Your task to perform on an android device: Add "logitech g933" to the cart on walmart Image 0: 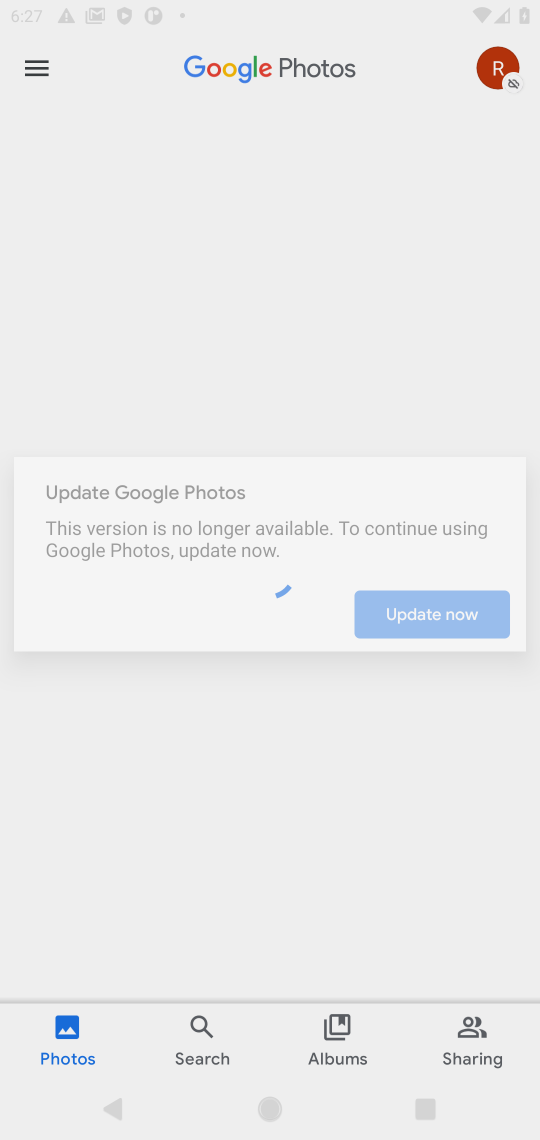
Step 0: press home button
Your task to perform on an android device: Add "logitech g933" to the cart on walmart Image 1: 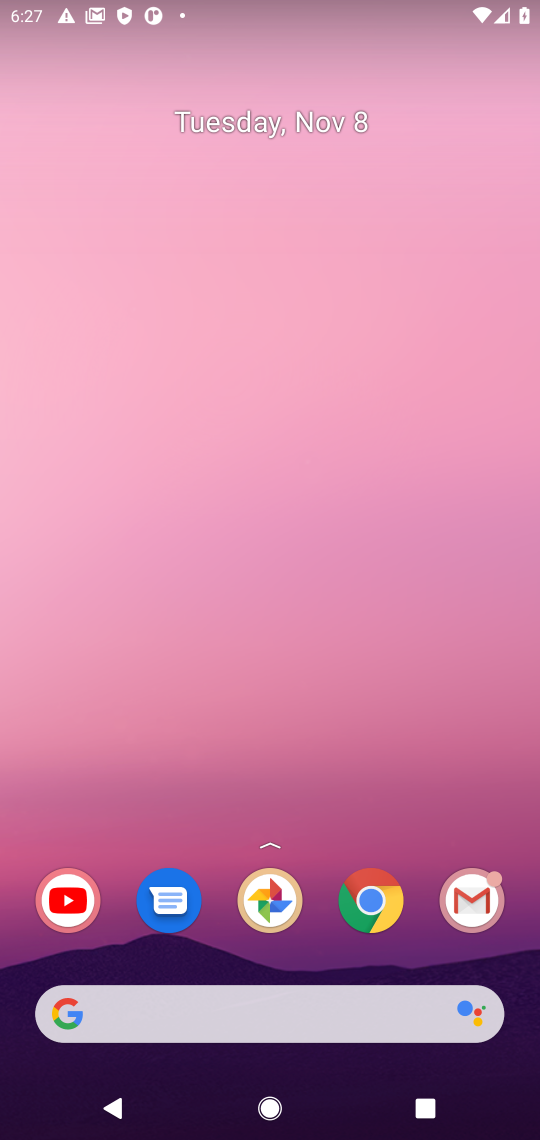
Step 1: click (371, 918)
Your task to perform on an android device: Add "logitech g933" to the cart on walmart Image 2: 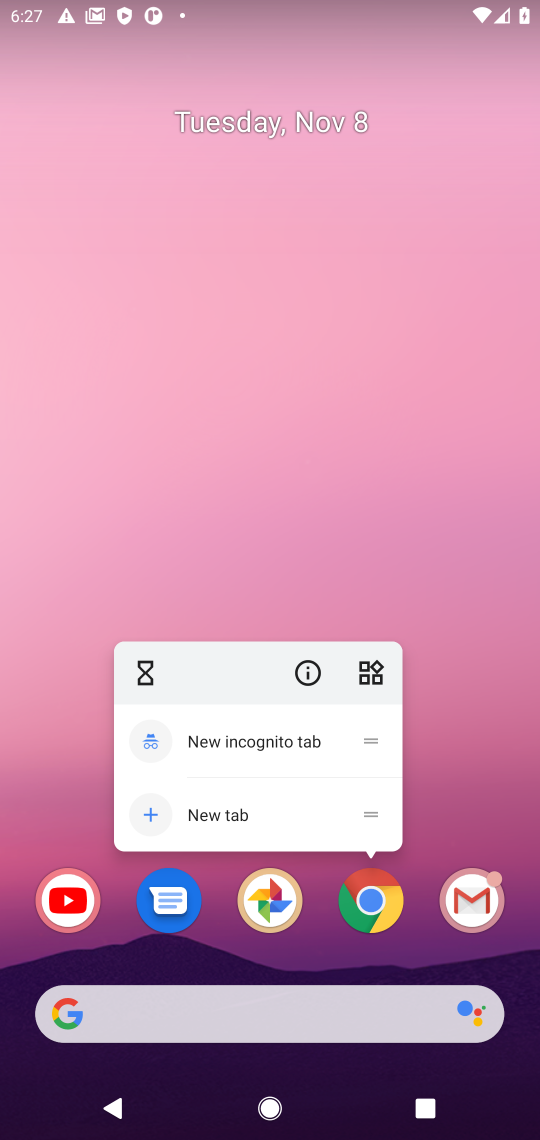
Step 2: click (363, 910)
Your task to perform on an android device: Add "logitech g933" to the cart on walmart Image 3: 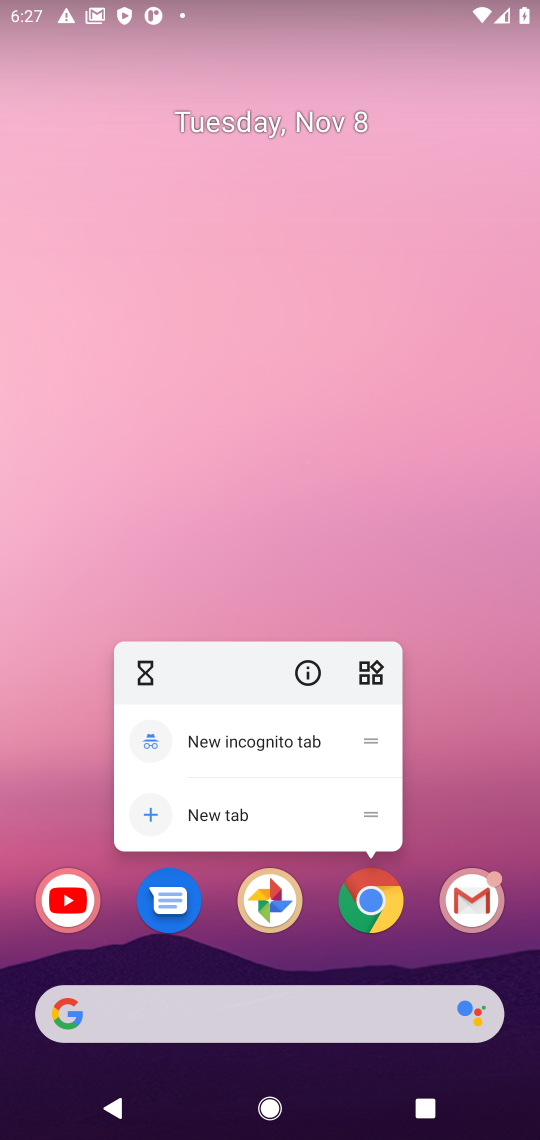
Step 3: click (361, 904)
Your task to perform on an android device: Add "logitech g933" to the cart on walmart Image 4: 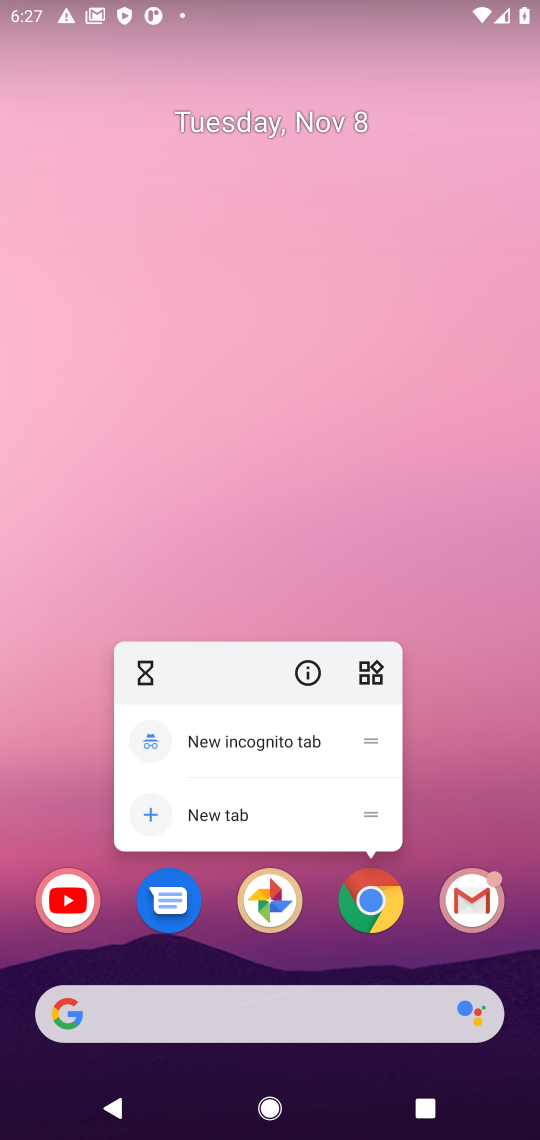
Step 4: click (378, 904)
Your task to perform on an android device: Add "logitech g933" to the cart on walmart Image 5: 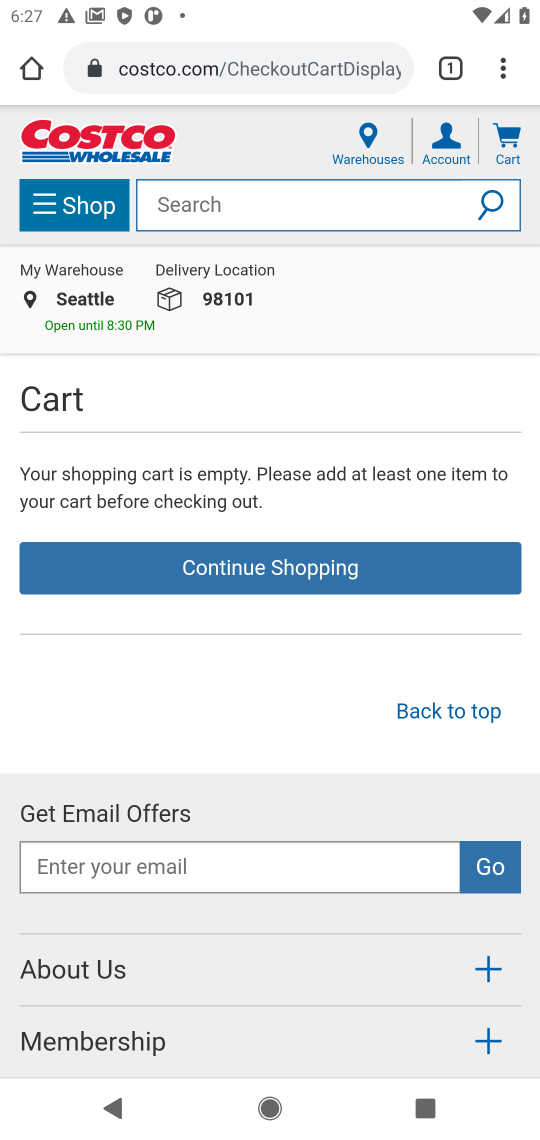
Step 5: click (147, 68)
Your task to perform on an android device: Add "logitech g933" to the cart on walmart Image 6: 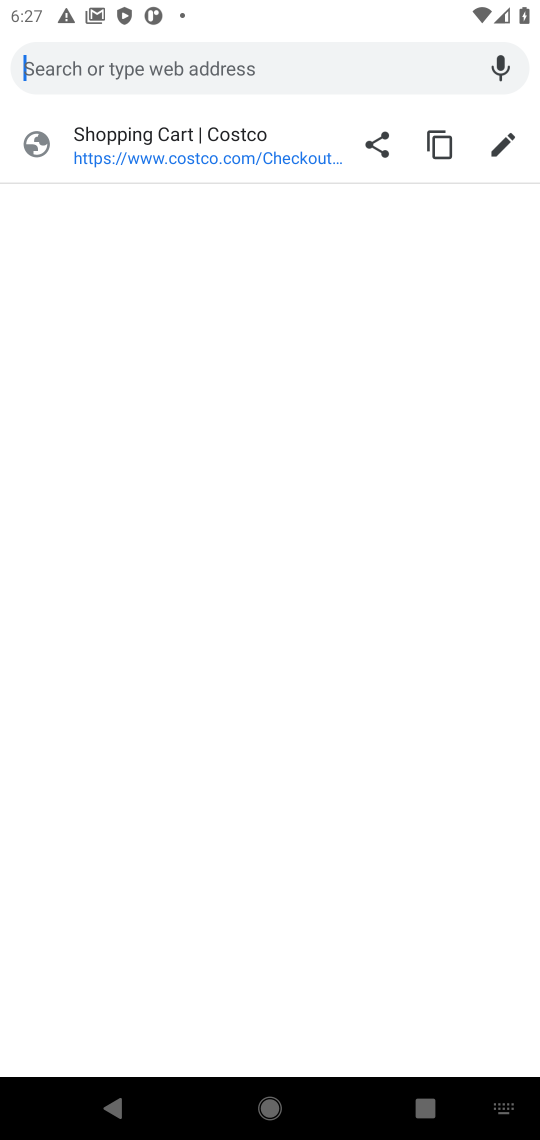
Step 6: type "walmart"
Your task to perform on an android device: Add "logitech g933" to the cart on walmart Image 7: 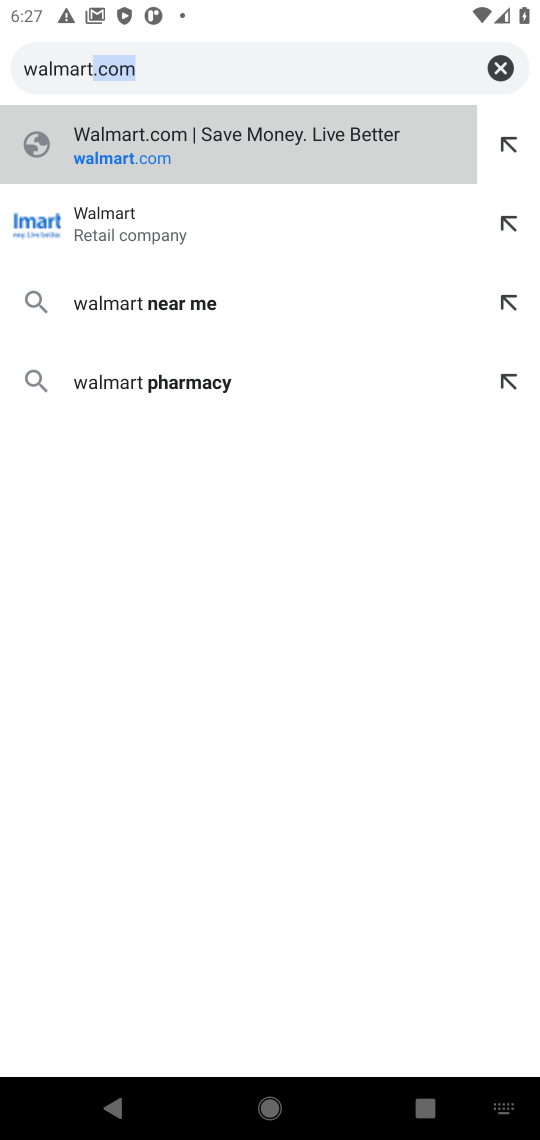
Step 7: type ""
Your task to perform on an android device: Add "logitech g933" to the cart on walmart Image 8: 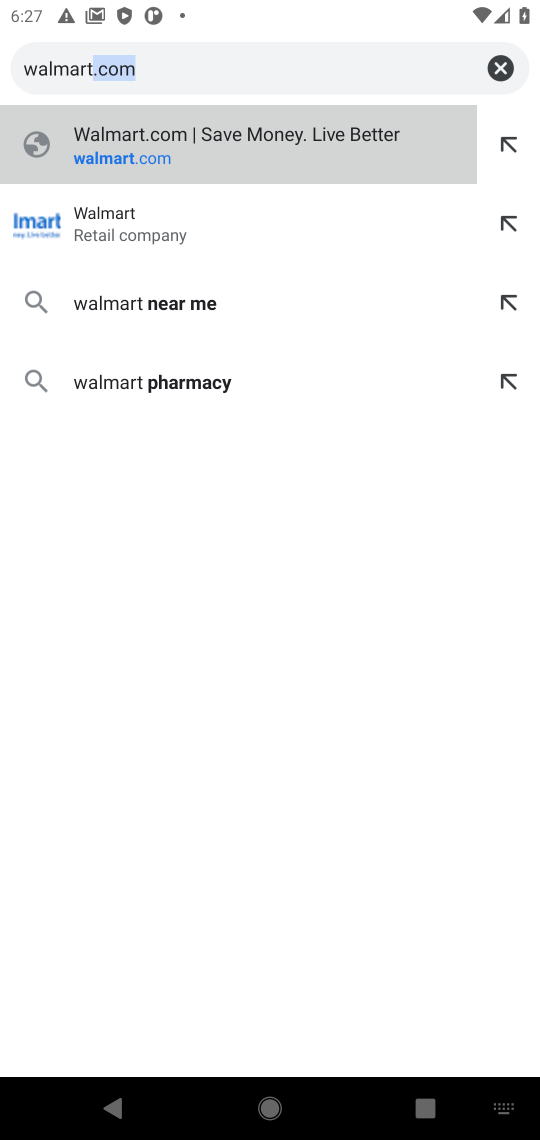
Step 8: click (85, 226)
Your task to perform on an android device: Add "logitech g933" to the cart on walmart Image 9: 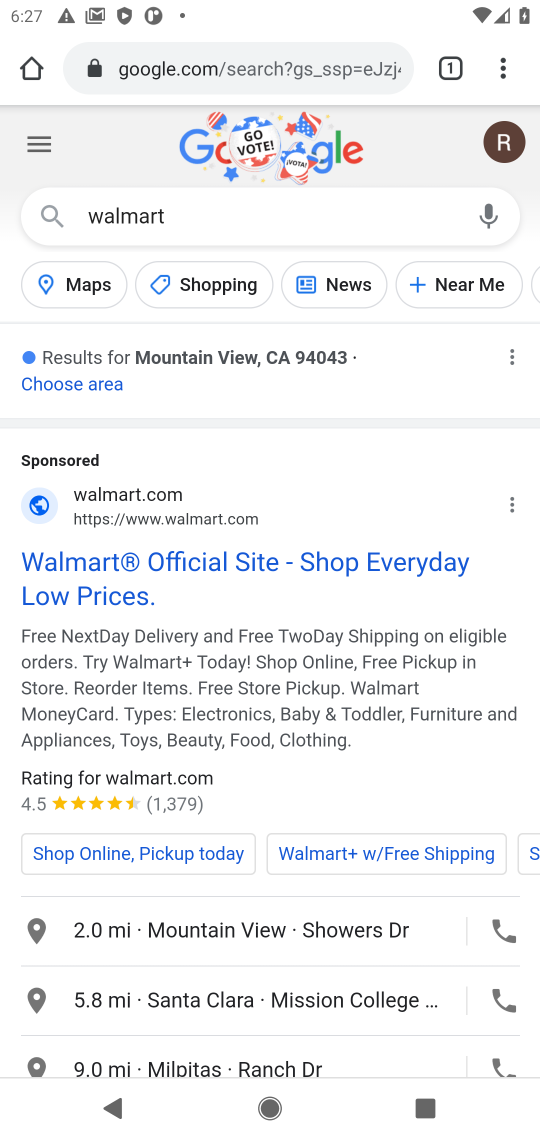
Step 9: drag from (198, 803) to (236, 197)
Your task to perform on an android device: Add "logitech g933" to the cart on walmart Image 10: 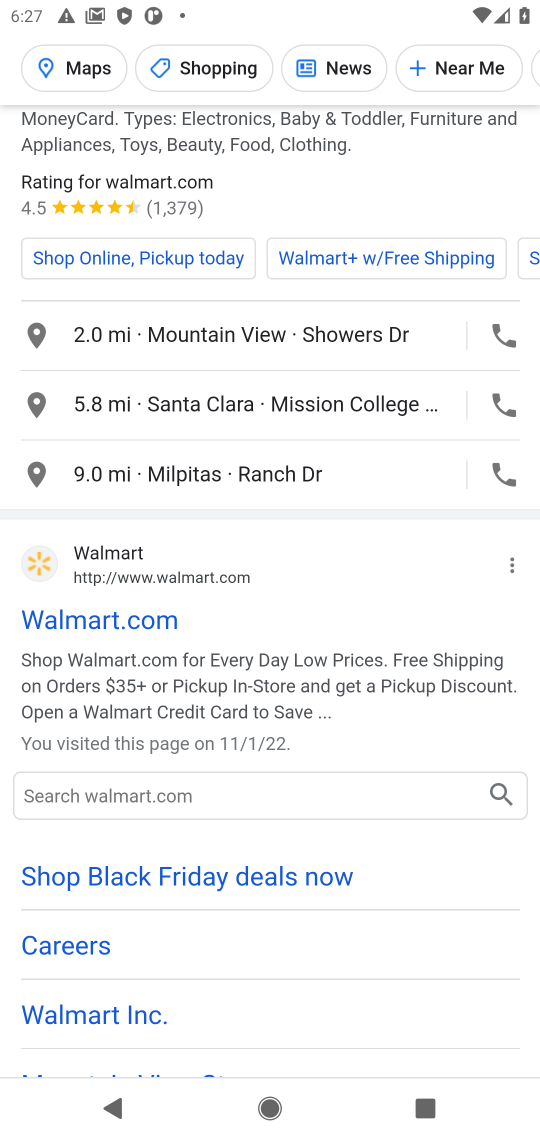
Step 10: click (85, 628)
Your task to perform on an android device: Add "logitech g933" to the cart on walmart Image 11: 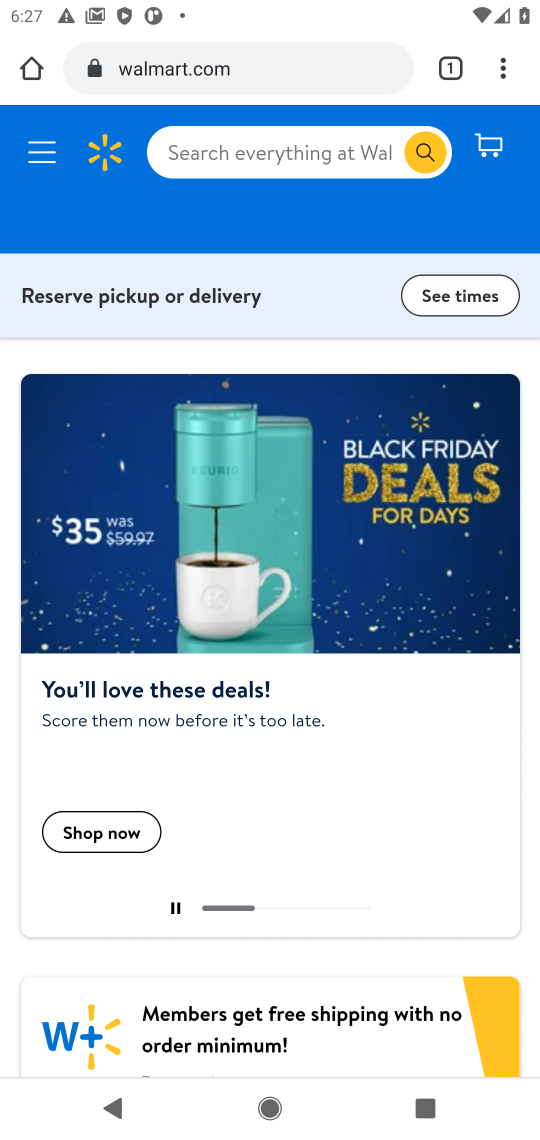
Step 11: click (306, 152)
Your task to perform on an android device: Add "logitech g933" to the cart on walmart Image 12: 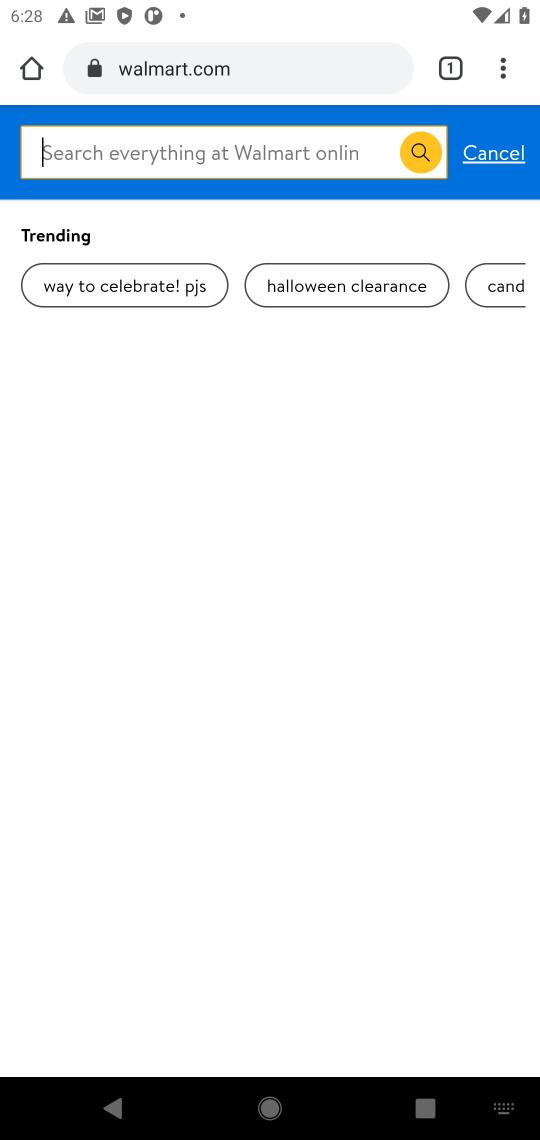
Step 12: type "logitech g933"
Your task to perform on an android device: Add "logitech g933" to the cart on walmart Image 13: 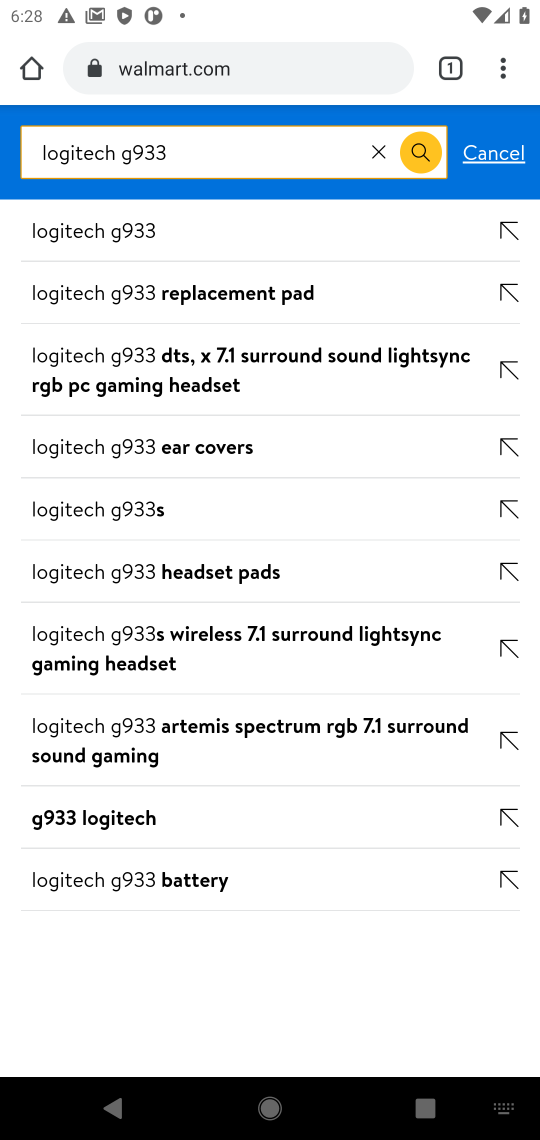
Step 13: type ""
Your task to perform on an android device: Add "logitech g933" to the cart on walmart Image 14: 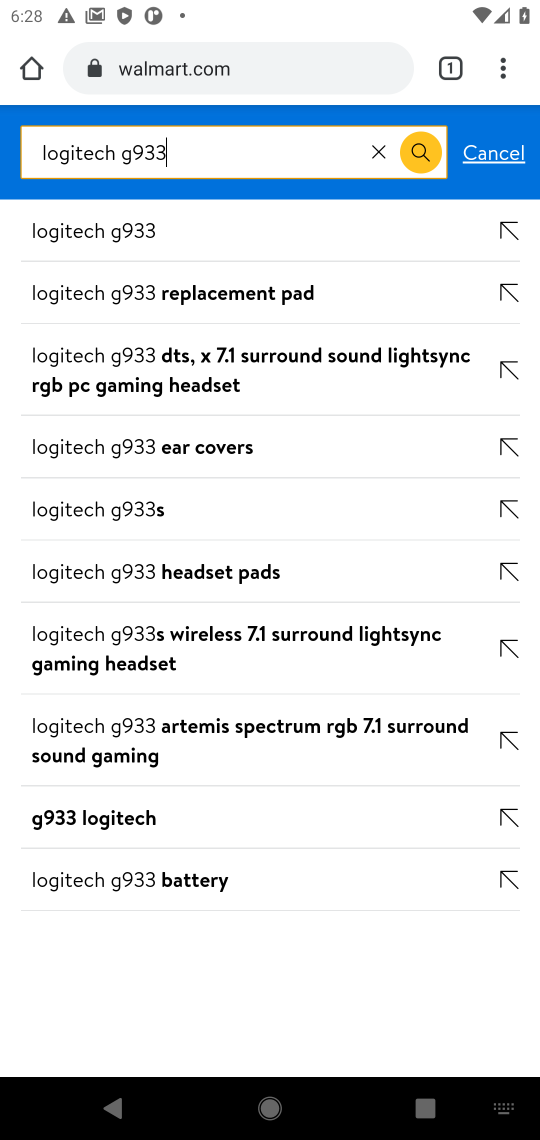
Step 14: click (91, 290)
Your task to perform on an android device: Add "logitech g933" to the cart on walmart Image 15: 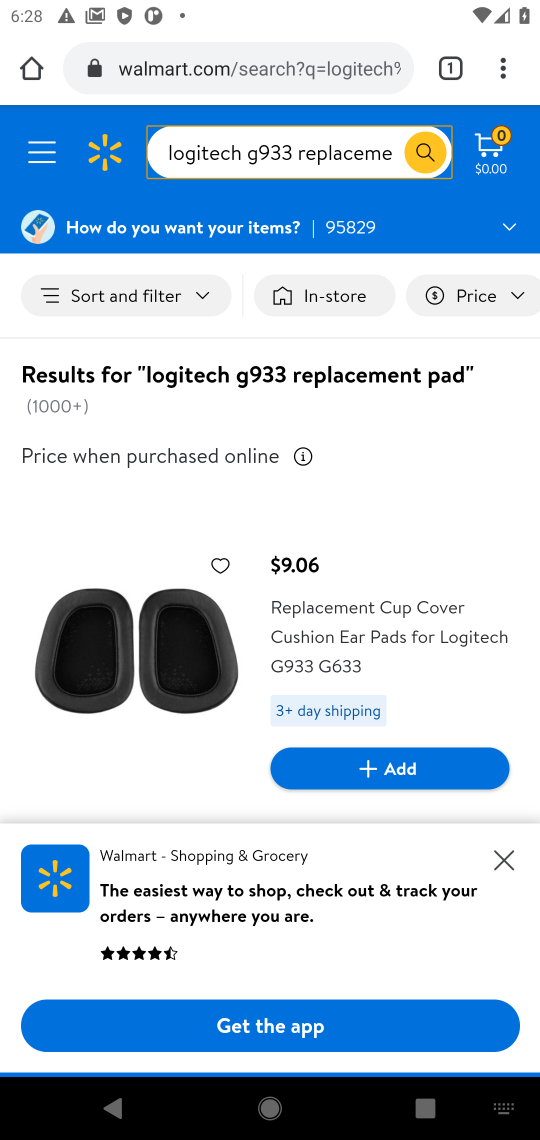
Step 15: click (502, 862)
Your task to perform on an android device: Add "logitech g933" to the cart on walmart Image 16: 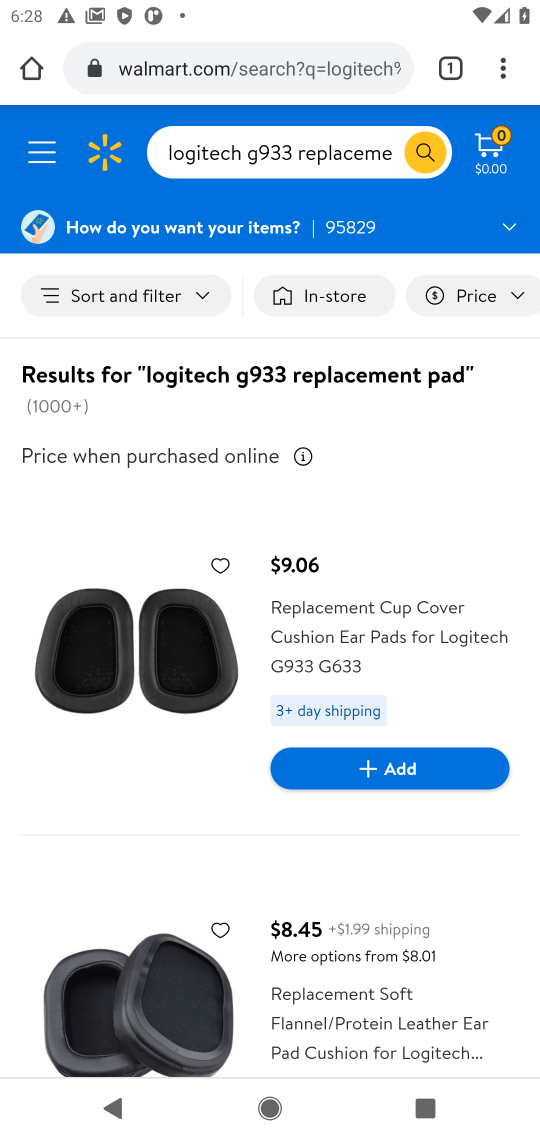
Step 16: drag from (134, 746) to (157, 254)
Your task to perform on an android device: Add "logitech g933" to the cart on walmart Image 17: 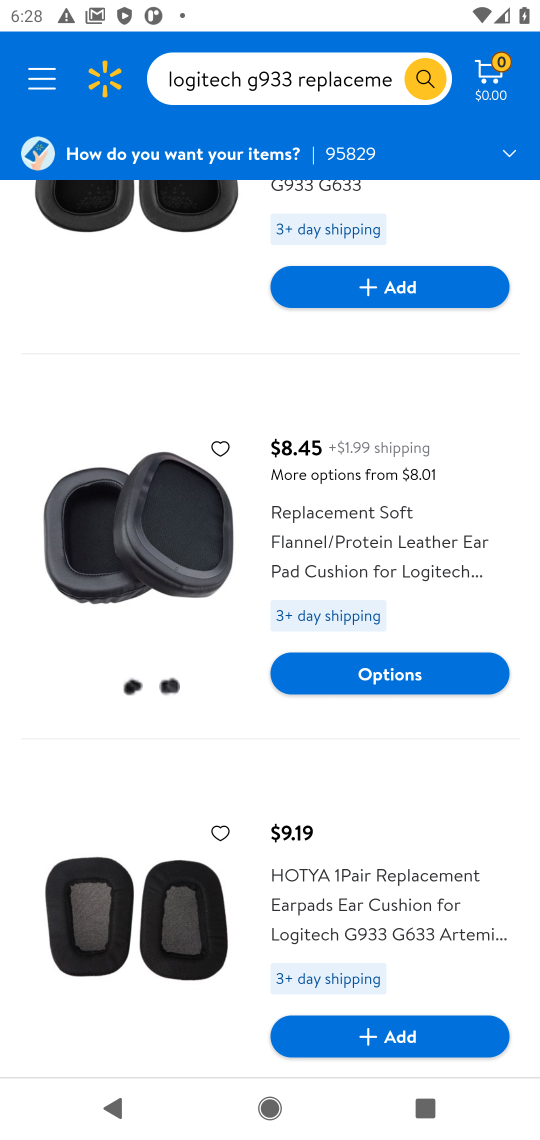
Step 17: drag from (232, 415) to (239, 840)
Your task to perform on an android device: Add "logitech g933" to the cart on walmart Image 18: 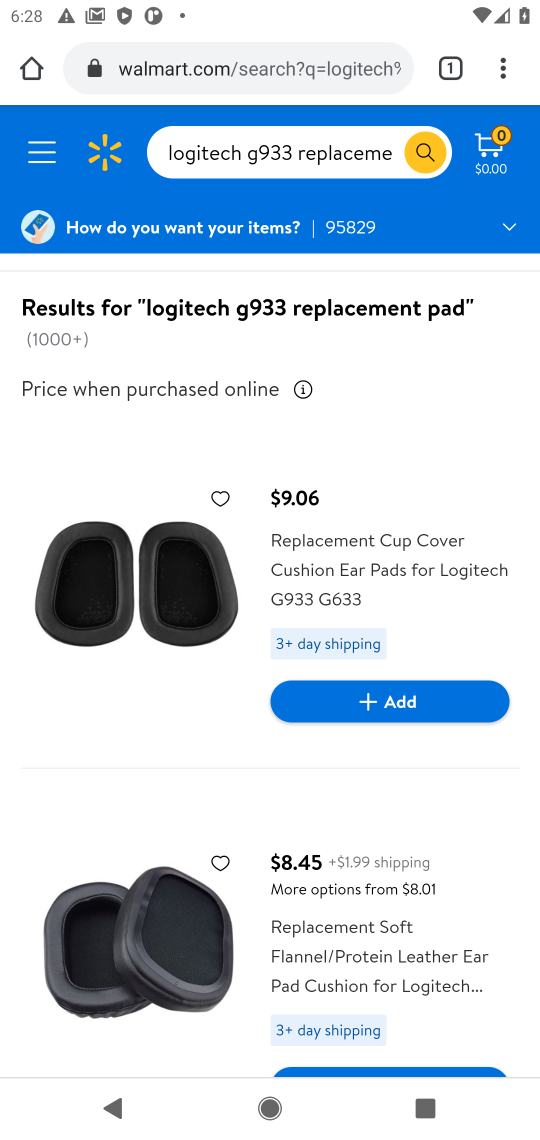
Step 18: click (317, 595)
Your task to perform on an android device: Add "logitech g933" to the cart on walmart Image 19: 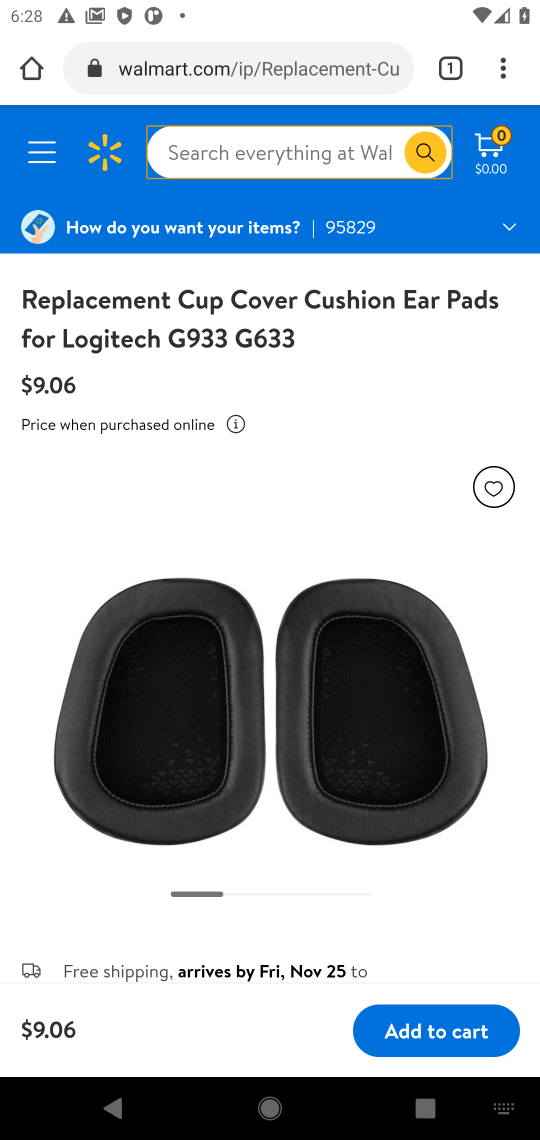
Step 19: drag from (287, 804) to (286, 330)
Your task to perform on an android device: Add "logitech g933" to the cart on walmart Image 20: 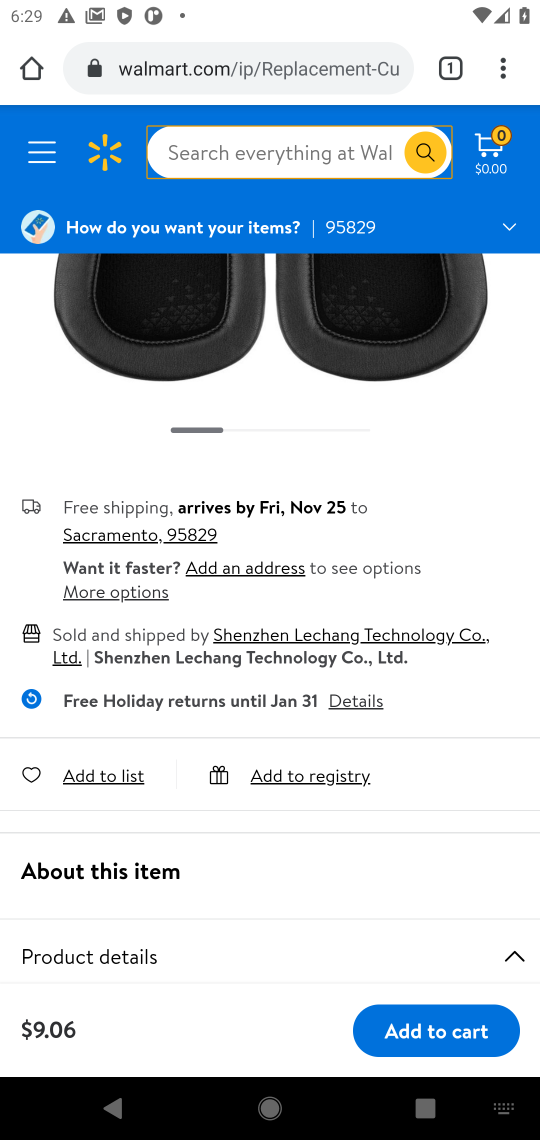
Step 20: click (442, 1034)
Your task to perform on an android device: Add "logitech g933" to the cart on walmart Image 21: 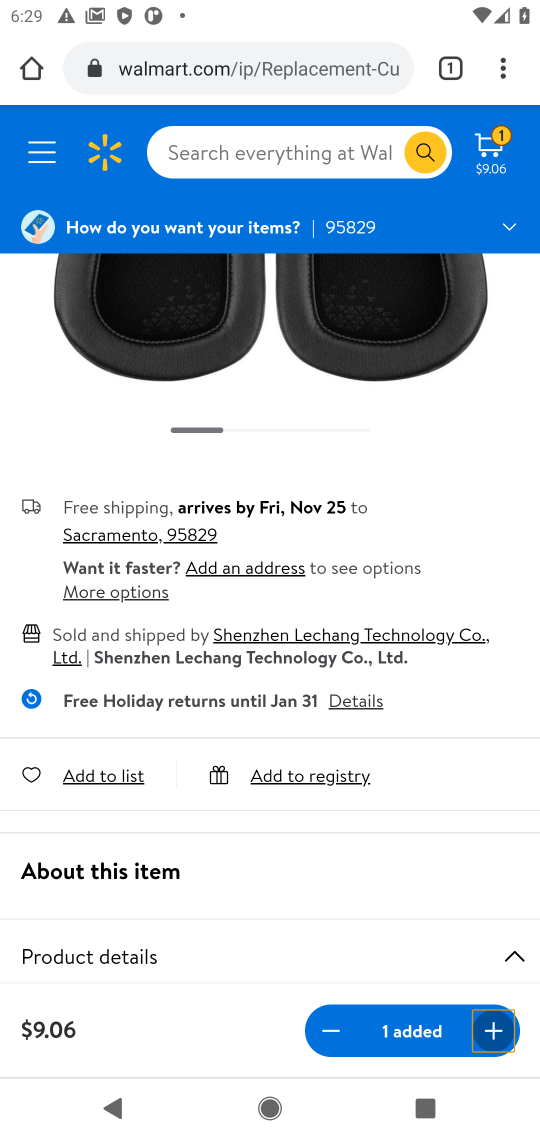
Step 21: click (511, 165)
Your task to perform on an android device: Add "logitech g933" to the cart on walmart Image 22: 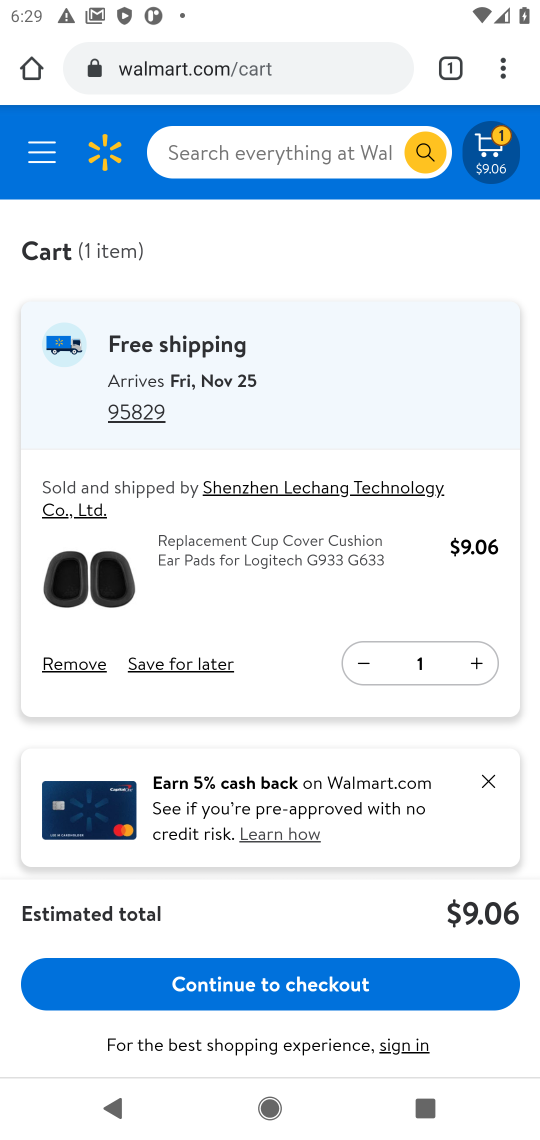
Step 22: click (488, 778)
Your task to perform on an android device: Add "logitech g933" to the cart on walmart Image 23: 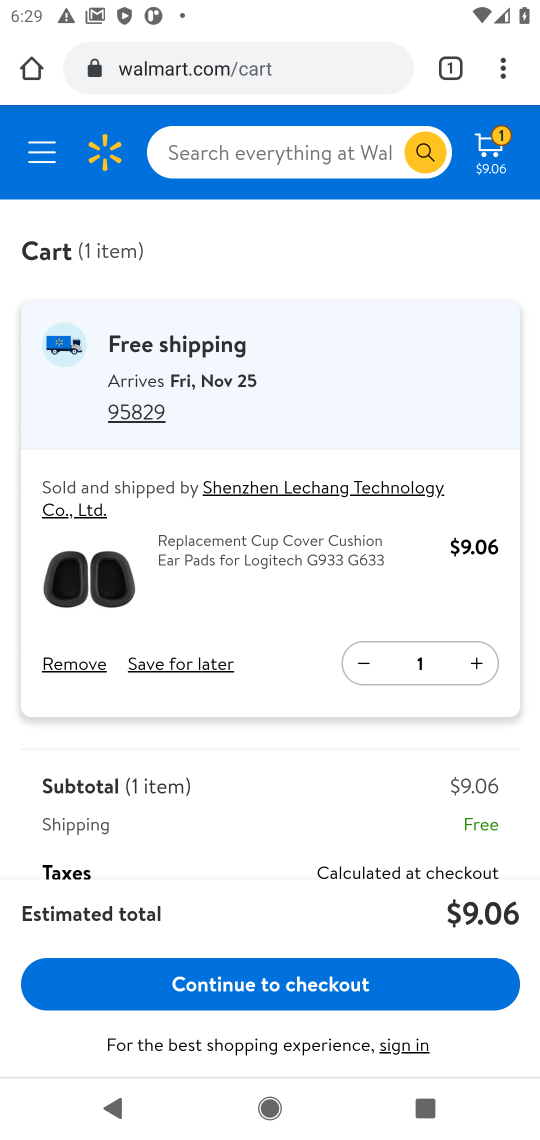
Step 23: task complete